Your task to perform on an android device: turn on airplane mode Image 0: 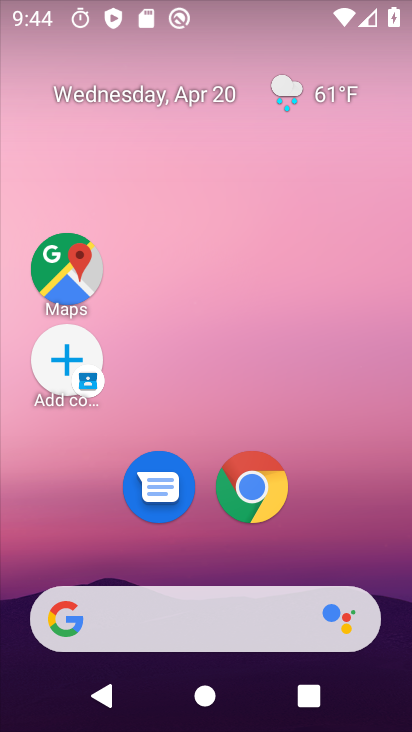
Step 0: drag from (301, 538) to (349, 30)
Your task to perform on an android device: turn on airplane mode Image 1: 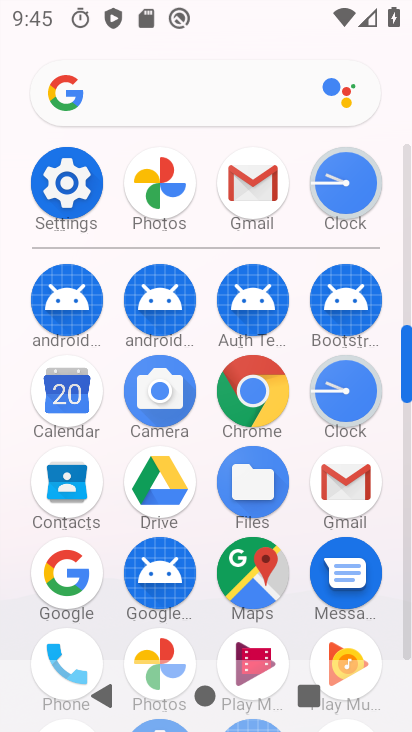
Step 1: click (73, 182)
Your task to perform on an android device: turn on airplane mode Image 2: 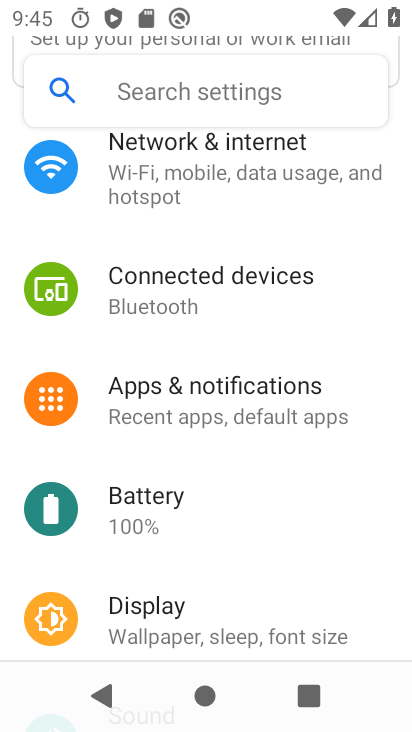
Step 2: click (141, 171)
Your task to perform on an android device: turn on airplane mode Image 3: 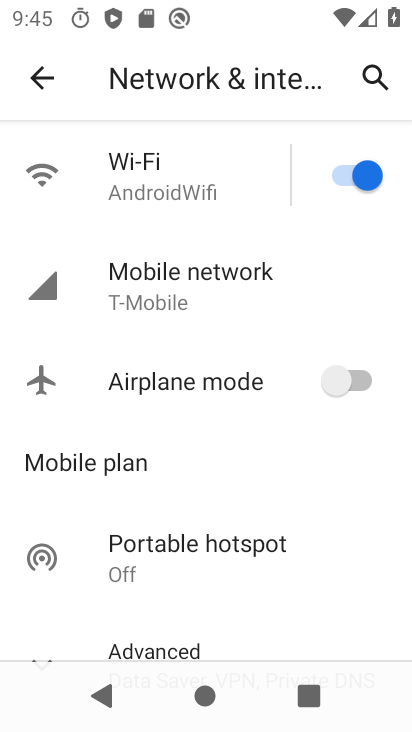
Step 3: click (337, 371)
Your task to perform on an android device: turn on airplane mode Image 4: 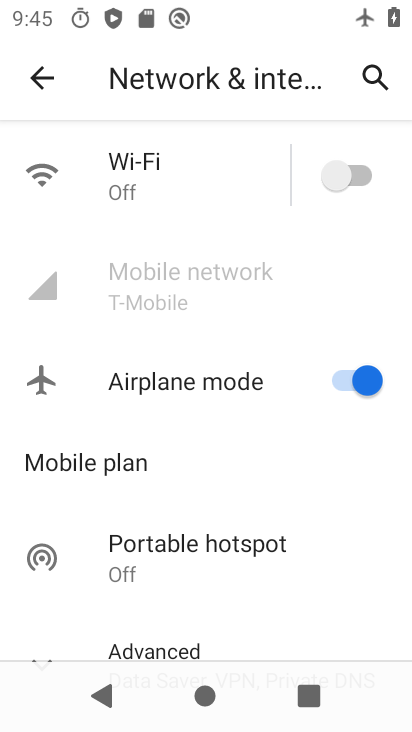
Step 4: task complete